Your task to perform on an android device: check the backup settings in the google photos Image 0: 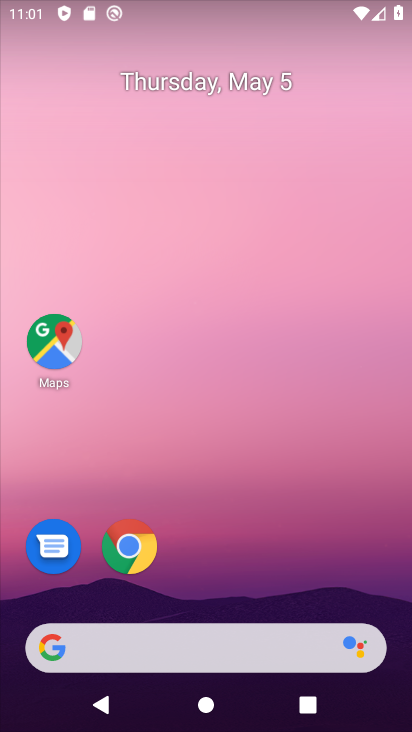
Step 0: drag from (388, 708) to (230, 205)
Your task to perform on an android device: check the backup settings in the google photos Image 1: 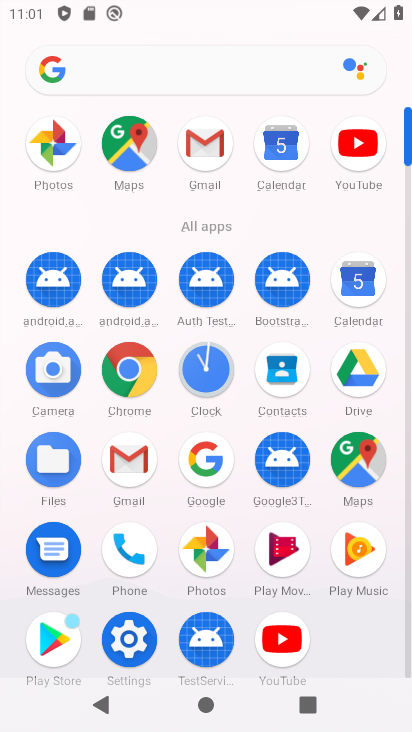
Step 1: click (210, 543)
Your task to perform on an android device: check the backup settings in the google photos Image 2: 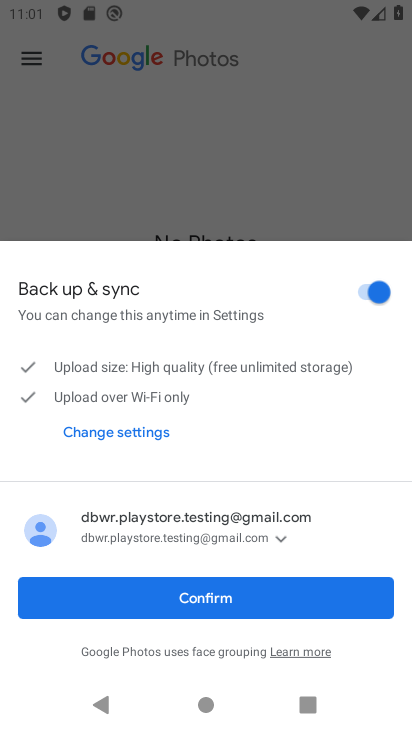
Step 2: click (223, 595)
Your task to perform on an android device: check the backup settings in the google photos Image 3: 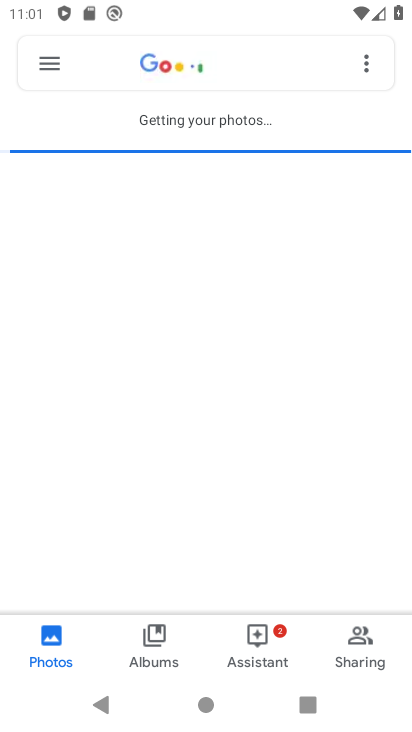
Step 3: click (50, 69)
Your task to perform on an android device: check the backup settings in the google photos Image 4: 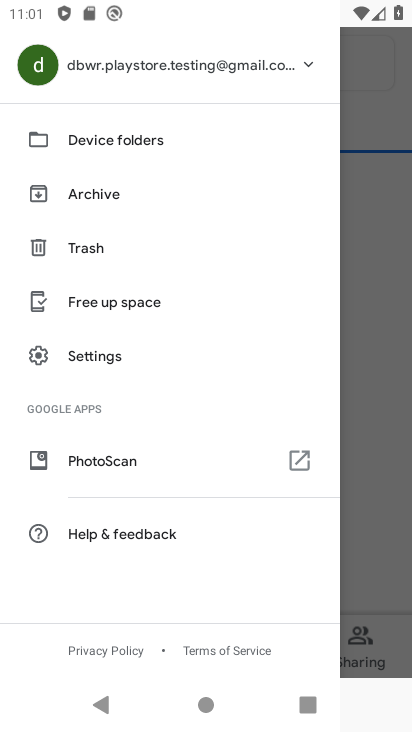
Step 4: click (132, 350)
Your task to perform on an android device: check the backup settings in the google photos Image 5: 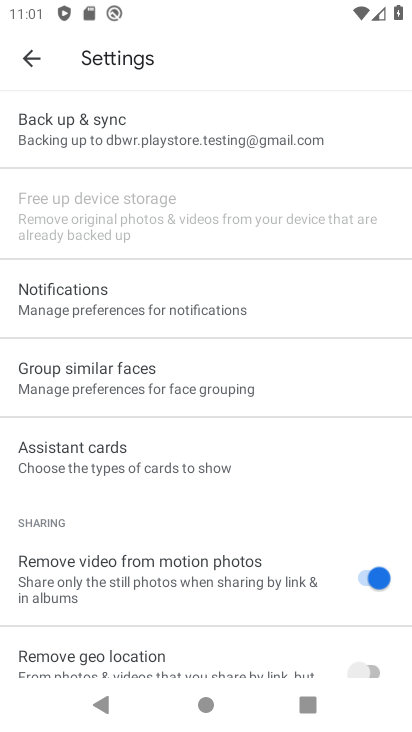
Step 5: task complete